Your task to perform on an android device: Clear all items from cart on target. Search for rayovac triple a on target, select the first entry, and add it to the cart. Image 0: 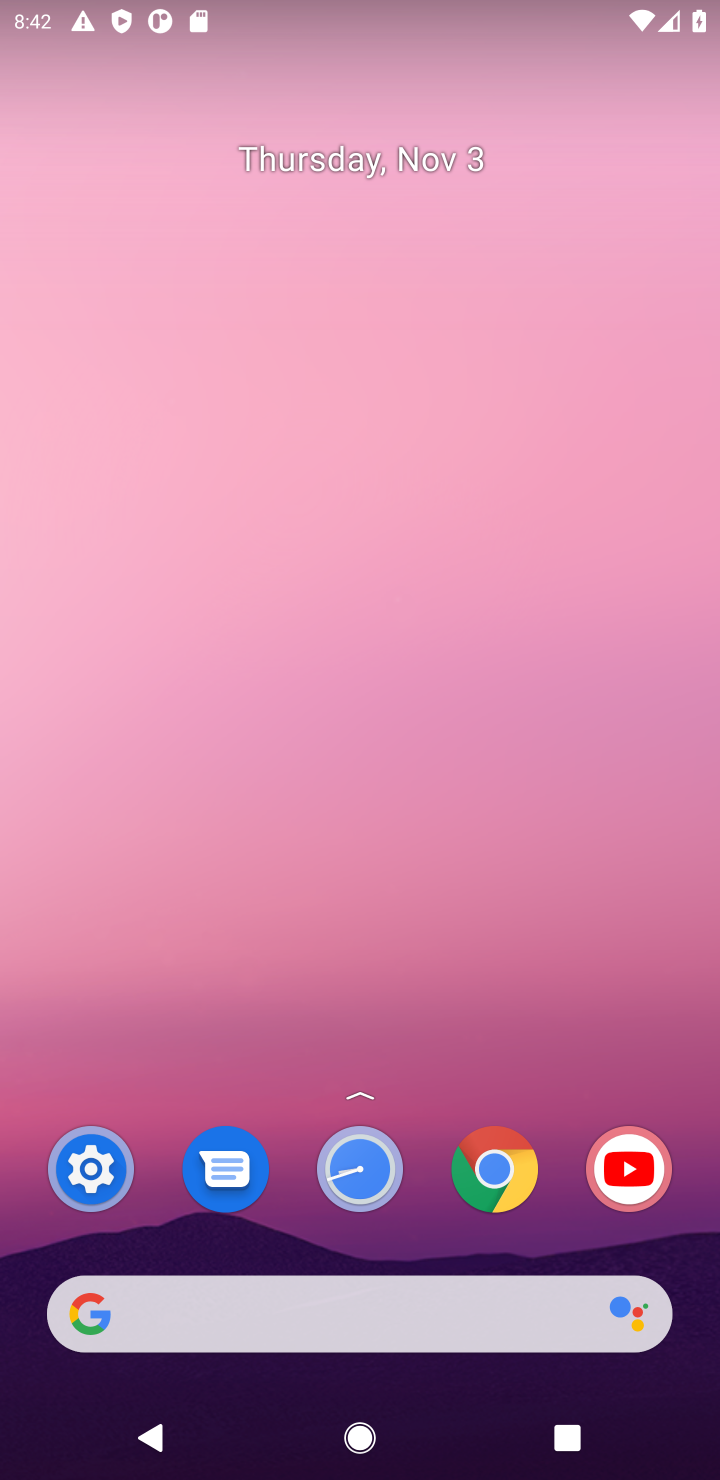
Step 0: drag from (430, 1091) to (483, 226)
Your task to perform on an android device: Clear all items from cart on target. Search for rayovac triple a on target, select the first entry, and add it to the cart. Image 1: 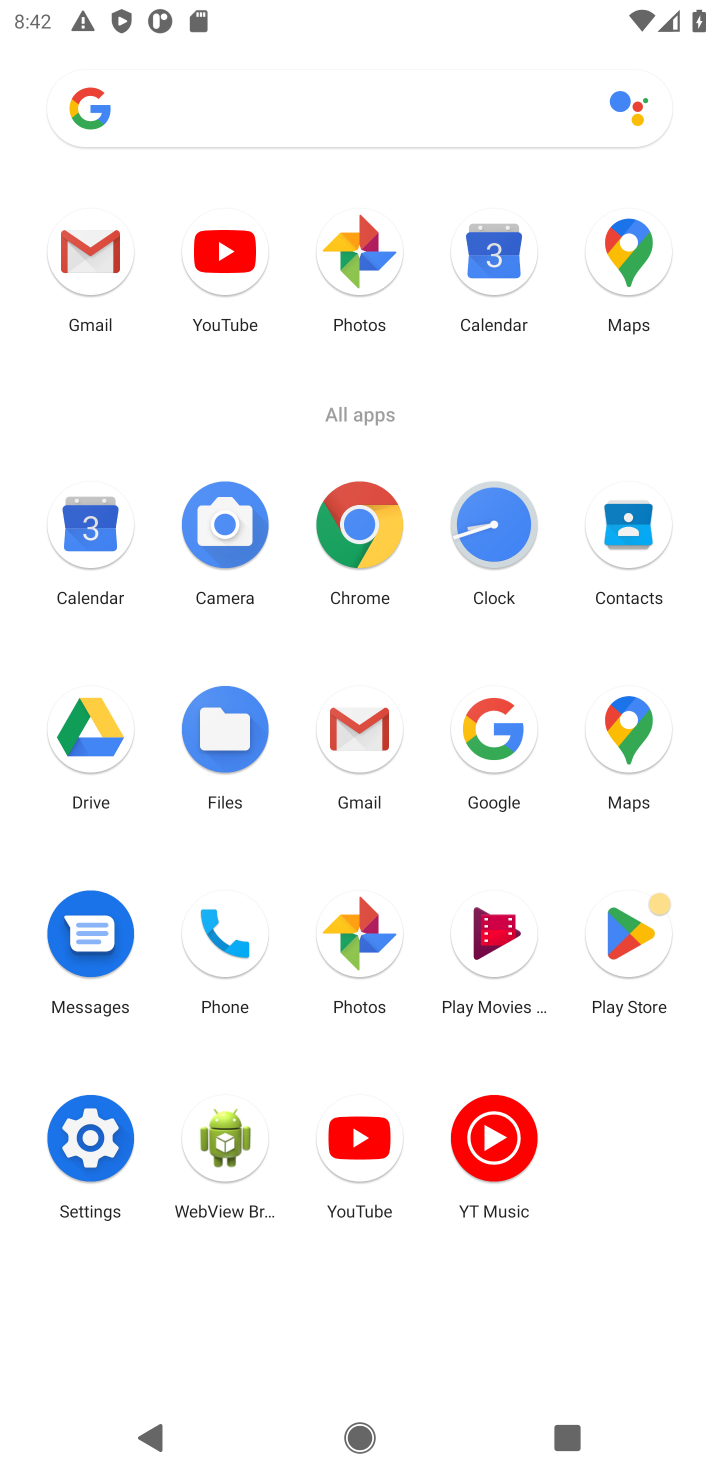
Step 1: click (361, 520)
Your task to perform on an android device: Clear all items from cart on target. Search for rayovac triple a on target, select the first entry, and add it to the cart. Image 2: 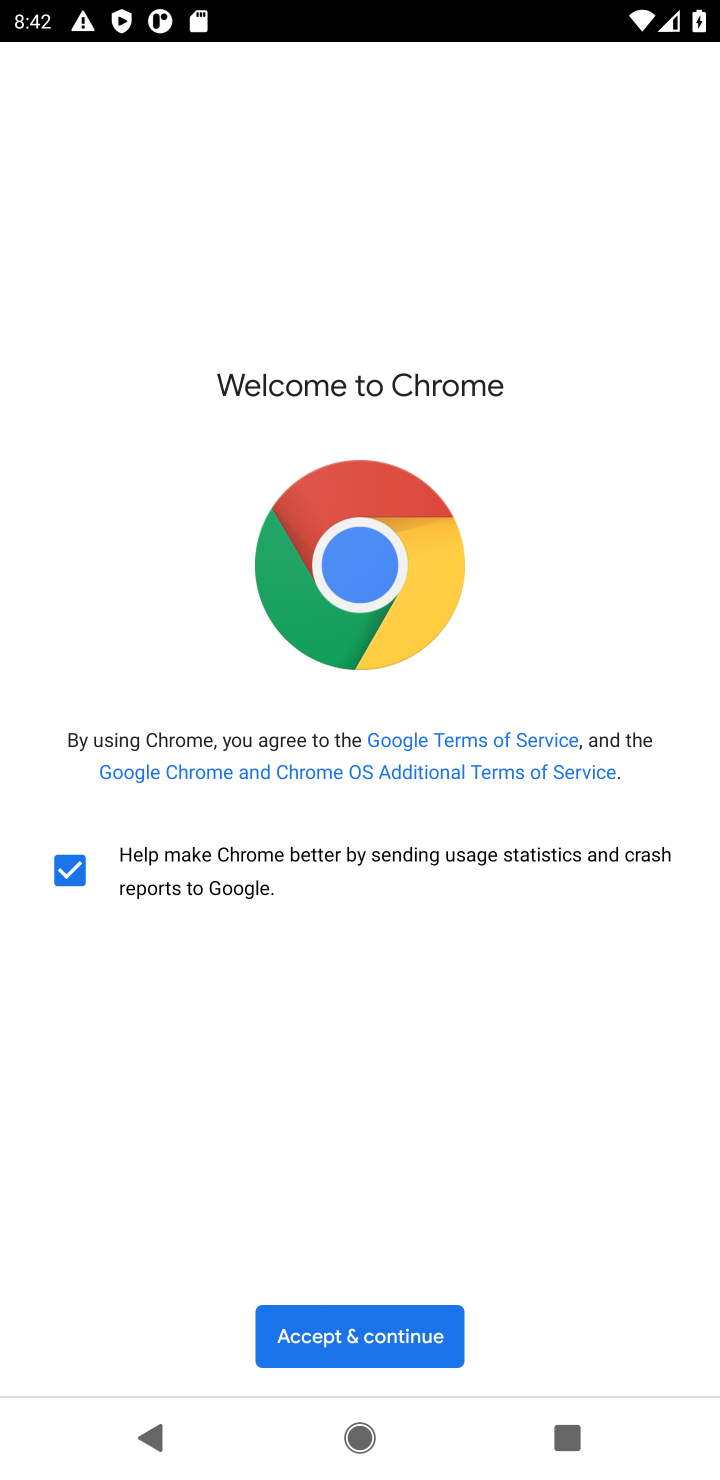
Step 2: click (292, 1345)
Your task to perform on an android device: Clear all items from cart on target. Search for rayovac triple a on target, select the first entry, and add it to the cart. Image 3: 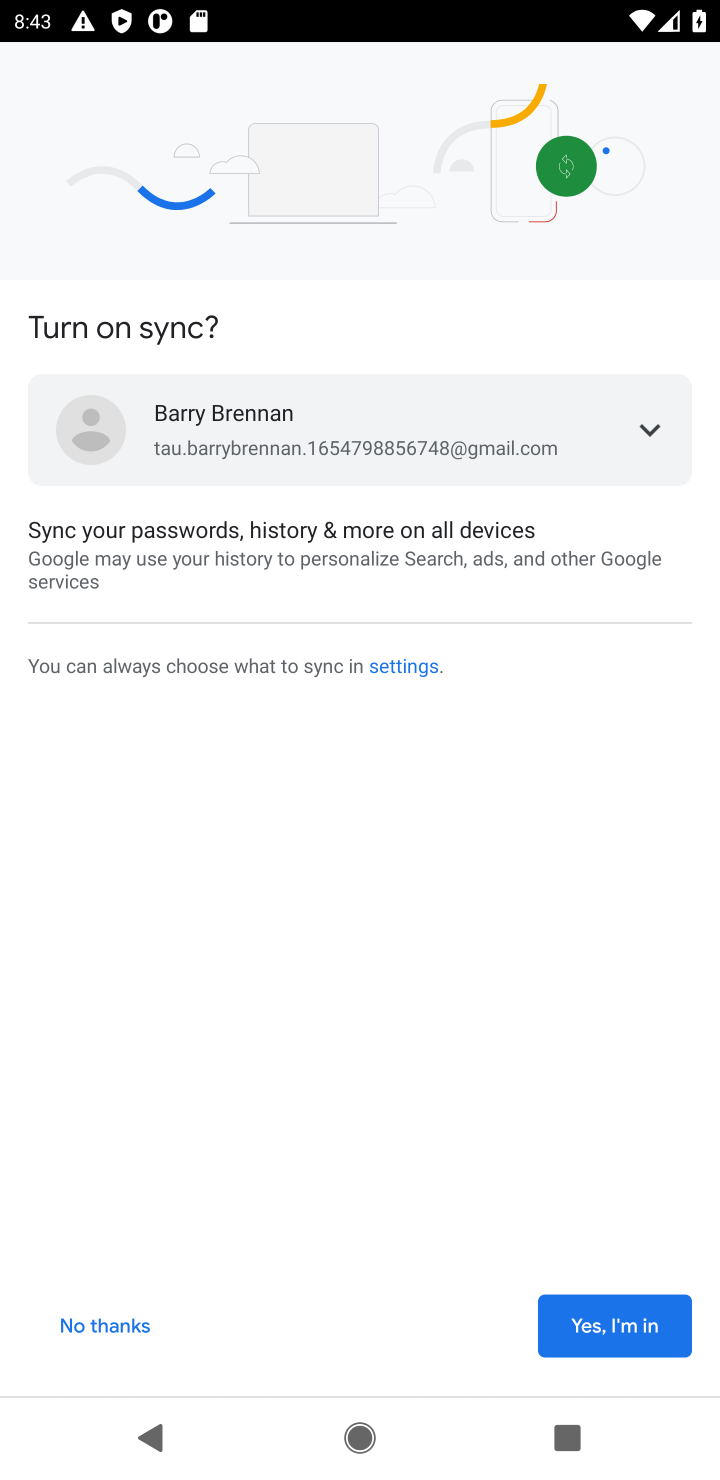
Step 3: click (651, 1307)
Your task to perform on an android device: Clear all items from cart on target. Search for rayovac triple a on target, select the first entry, and add it to the cart. Image 4: 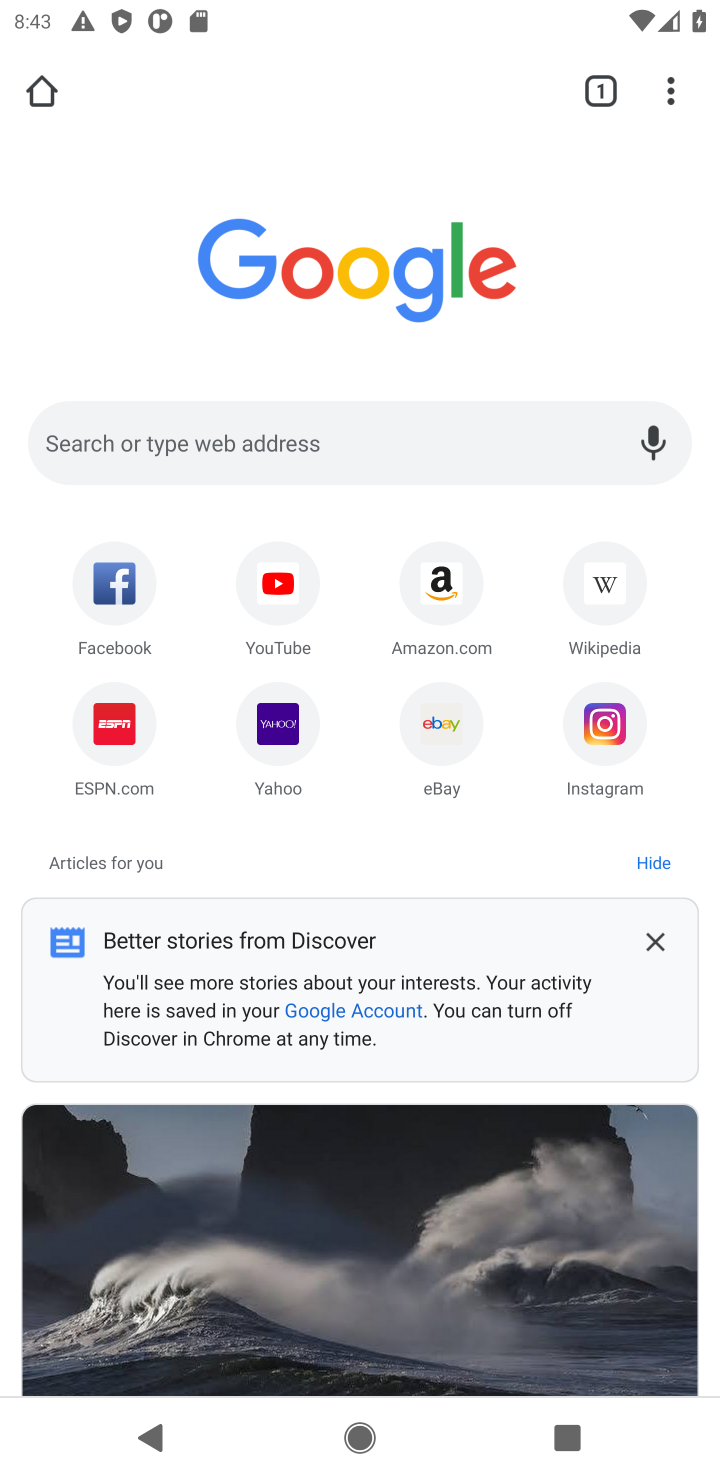
Step 4: click (448, 418)
Your task to perform on an android device: Clear all items from cart on target. Search for rayovac triple a on target, select the first entry, and add it to the cart. Image 5: 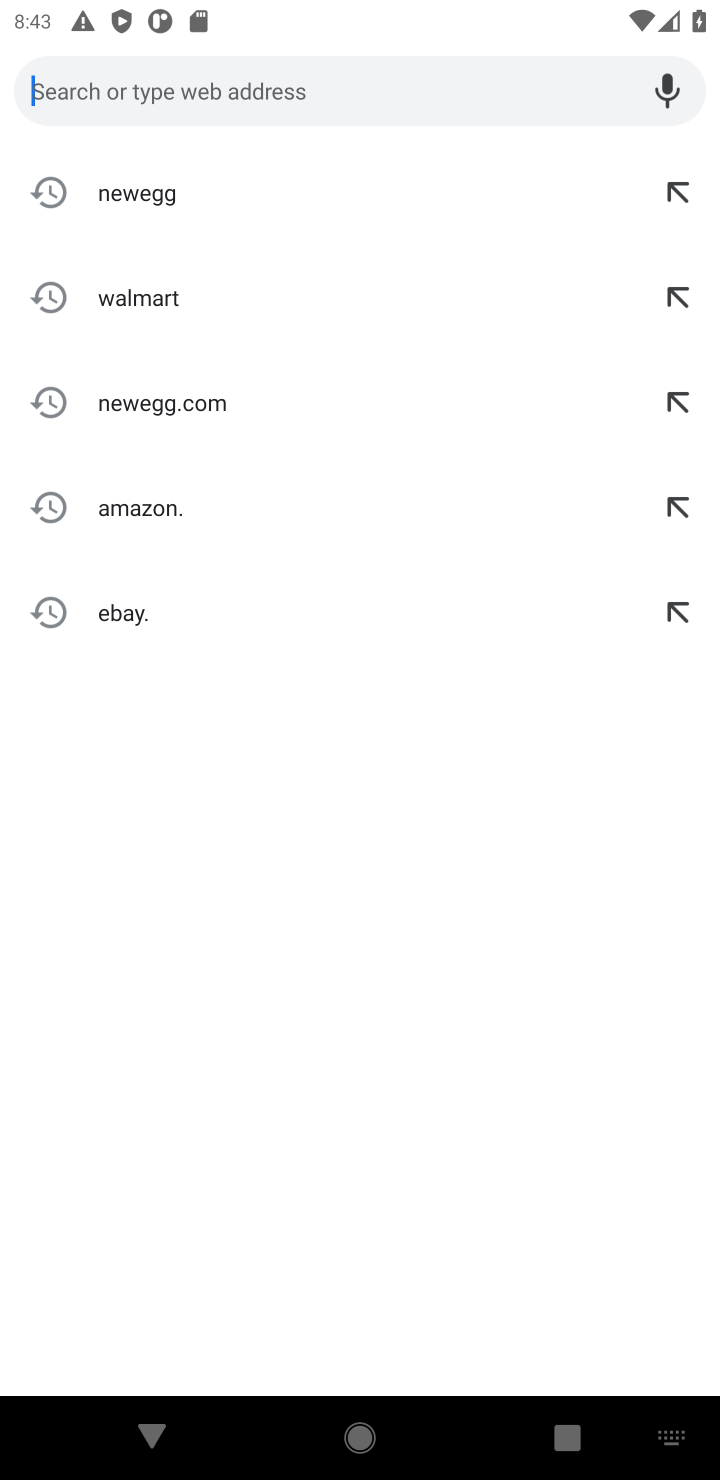
Step 5: type "target.com"
Your task to perform on an android device: Clear all items from cart on target. Search for rayovac triple a on target, select the first entry, and add it to the cart. Image 6: 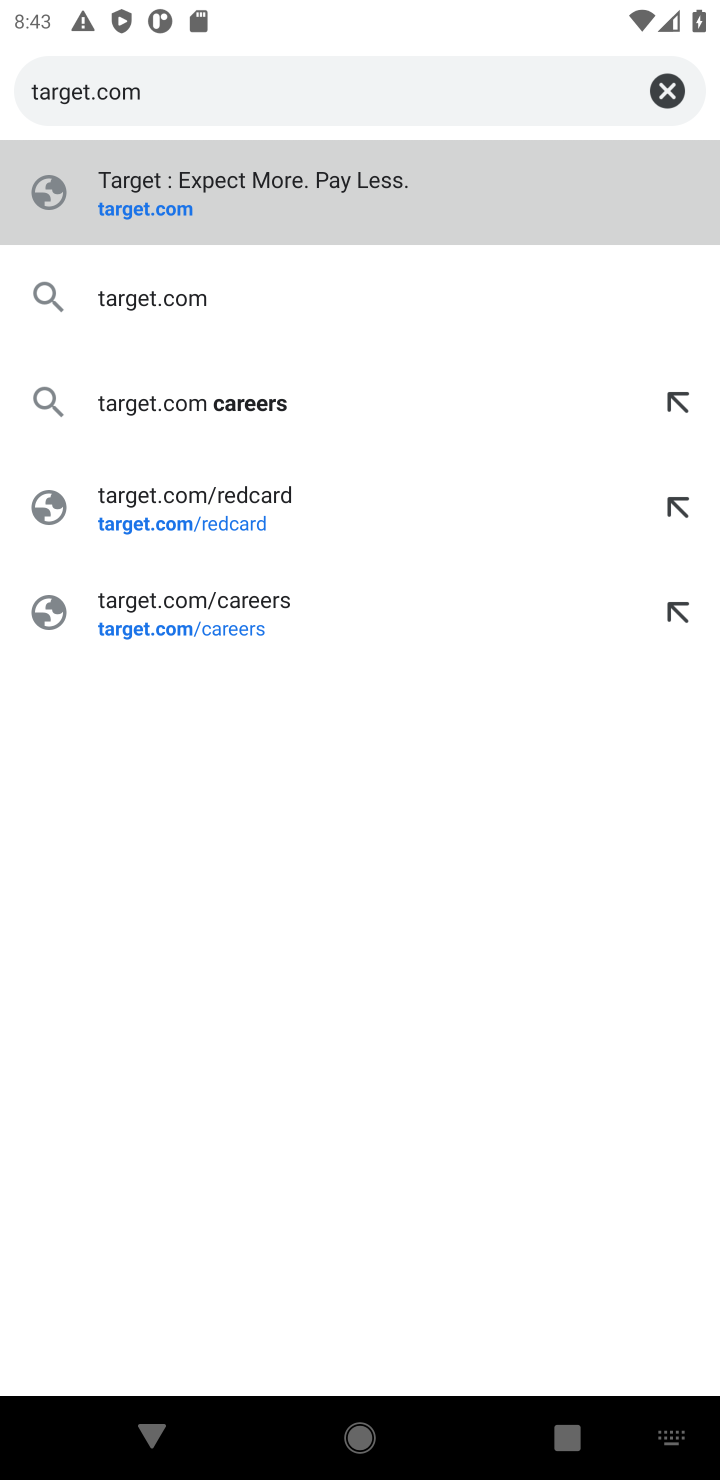
Step 6: press enter
Your task to perform on an android device: Clear all items from cart on target. Search for rayovac triple a on target, select the first entry, and add it to the cart. Image 7: 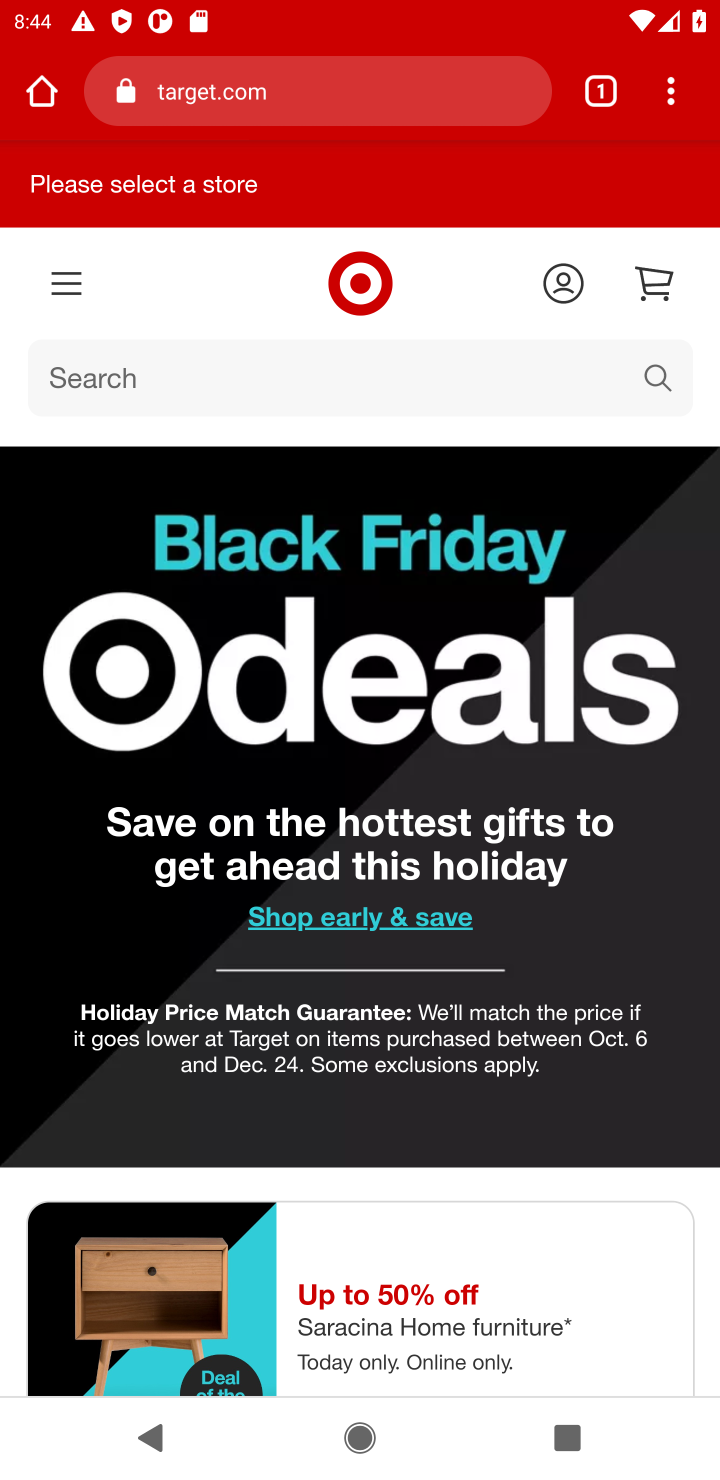
Step 7: drag from (354, 1187) to (498, 360)
Your task to perform on an android device: Clear all items from cart on target. Search for rayovac triple a on target, select the first entry, and add it to the cart. Image 8: 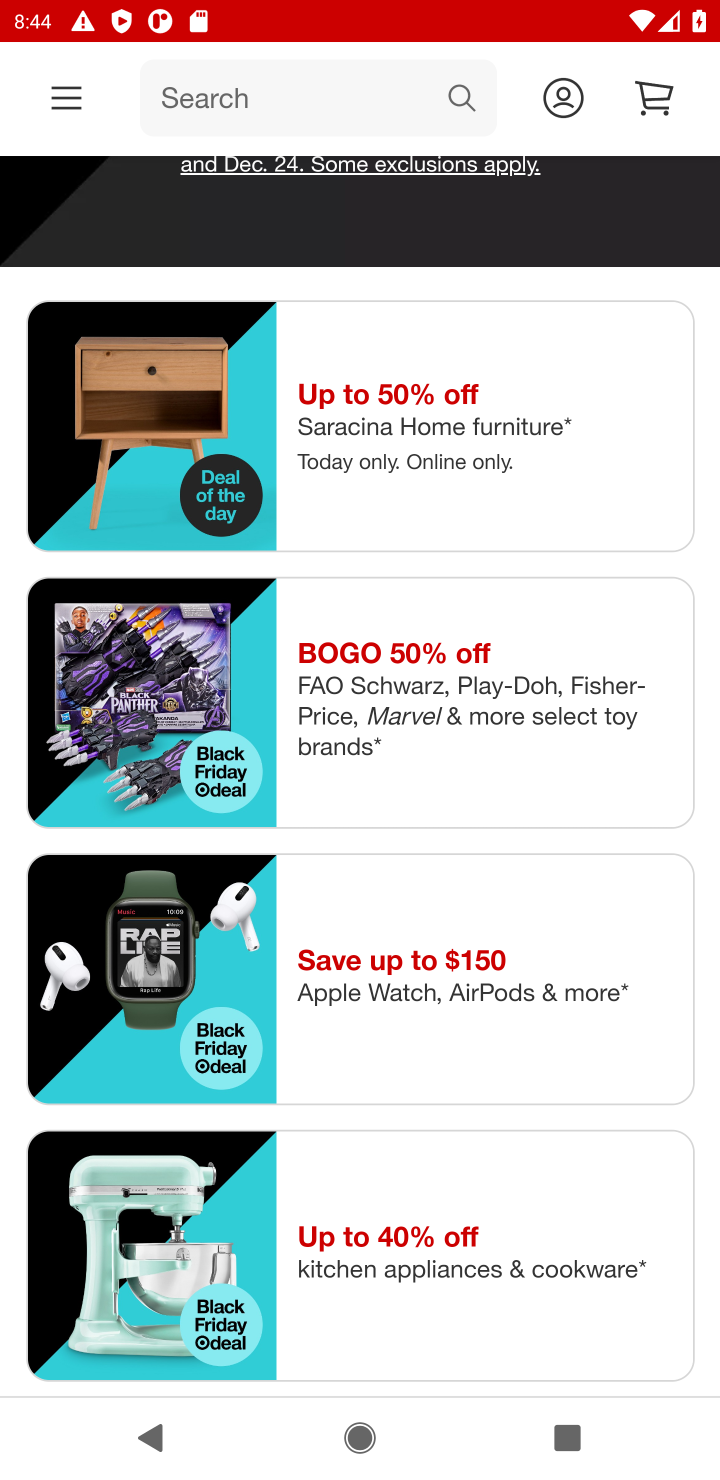
Step 8: click (656, 102)
Your task to perform on an android device: Clear all items from cart on target. Search for rayovac triple a on target, select the first entry, and add it to the cart. Image 9: 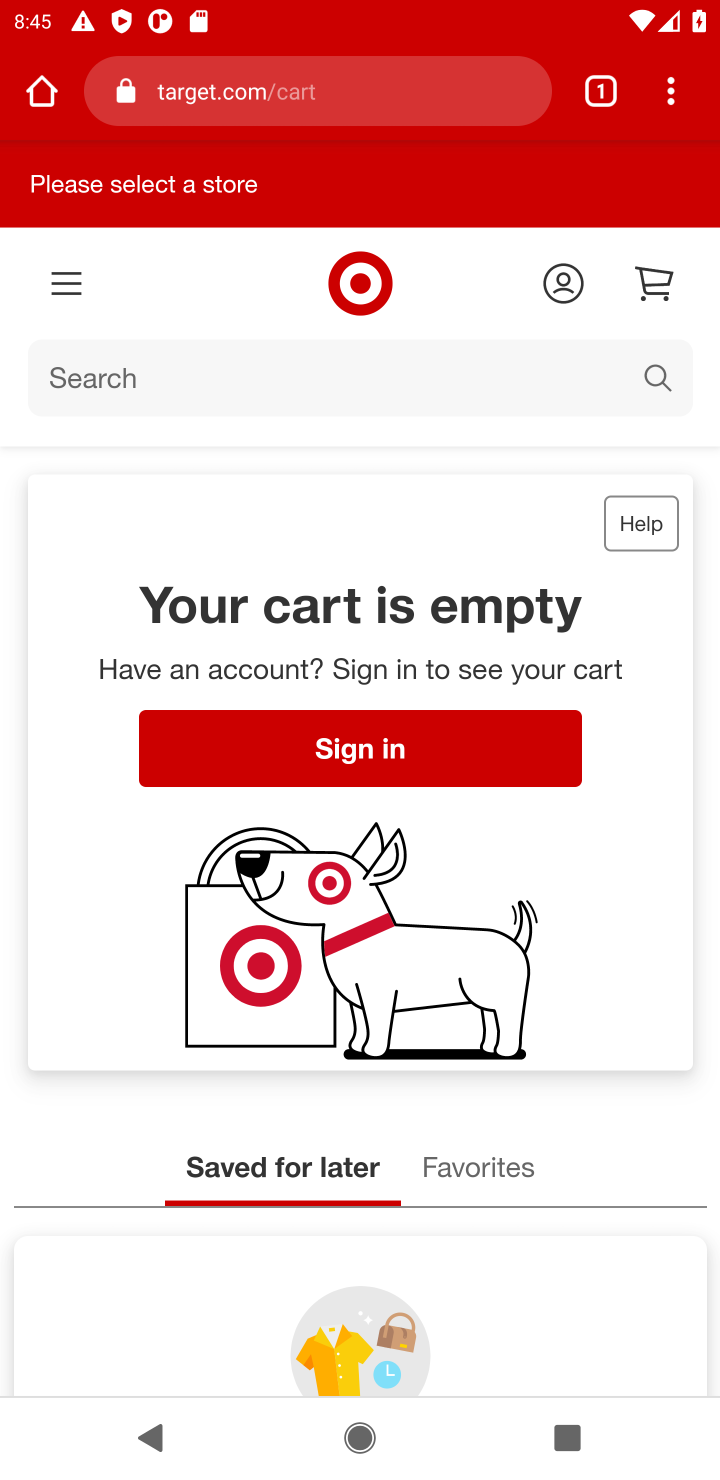
Step 9: click (472, 373)
Your task to perform on an android device: Clear all items from cart on target. Search for rayovac triple a on target, select the first entry, and add it to the cart. Image 10: 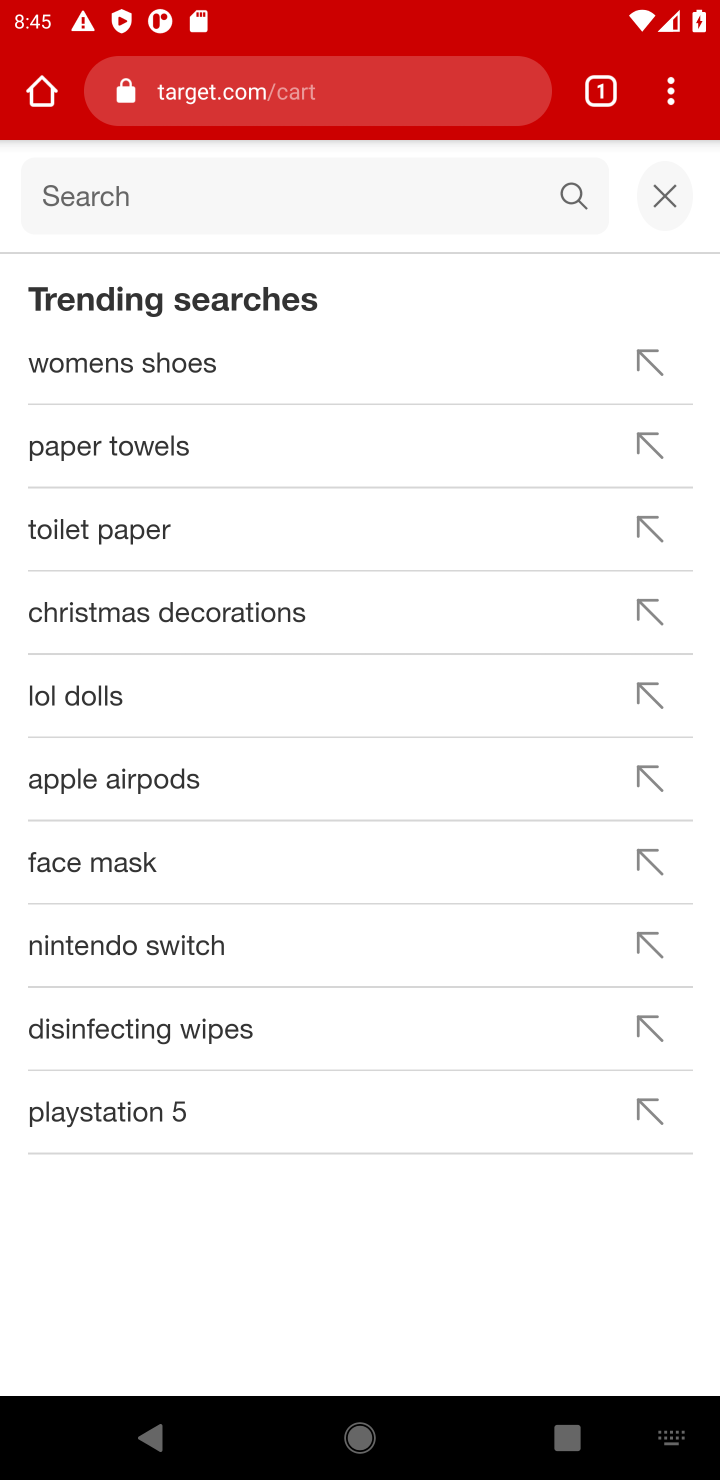
Step 10: type "rayovac triple a"
Your task to perform on an android device: Clear all items from cart on target. Search for rayovac triple a on target, select the first entry, and add it to the cart. Image 11: 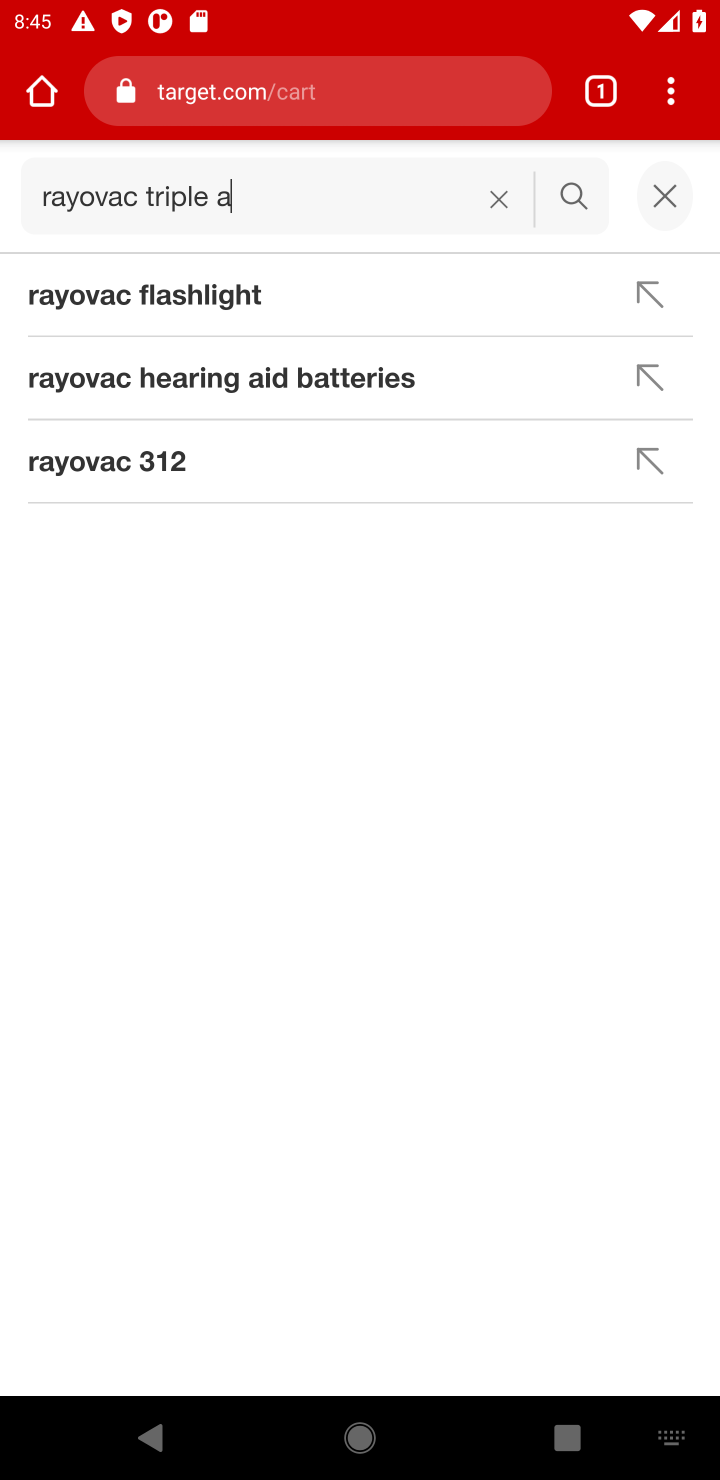
Step 11: press enter
Your task to perform on an android device: Clear all items from cart on target. Search for rayovac triple a on target, select the first entry, and add it to the cart. Image 12: 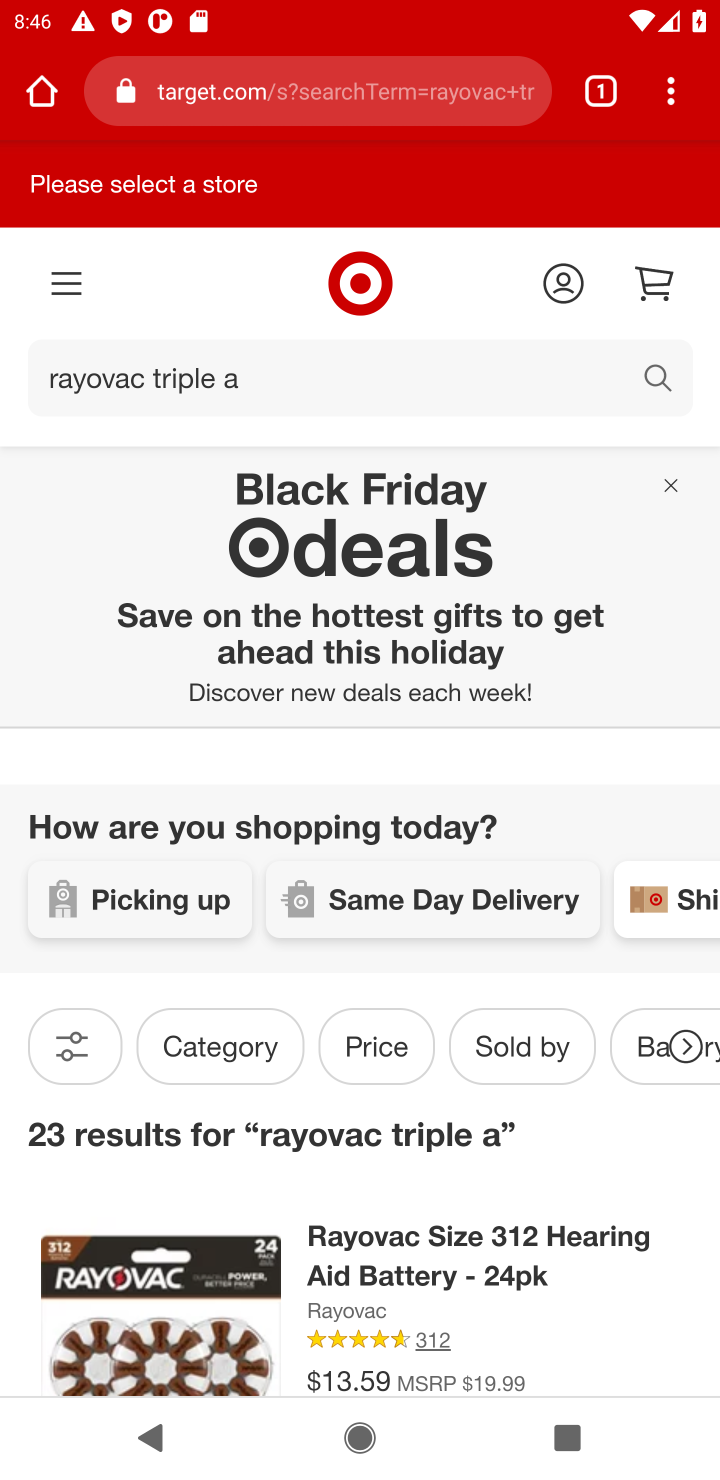
Step 12: drag from (501, 1239) to (508, 548)
Your task to perform on an android device: Clear all items from cart on target. Search for rayovac triple a on target, select the first entry, and add it to the cart. Image 13: 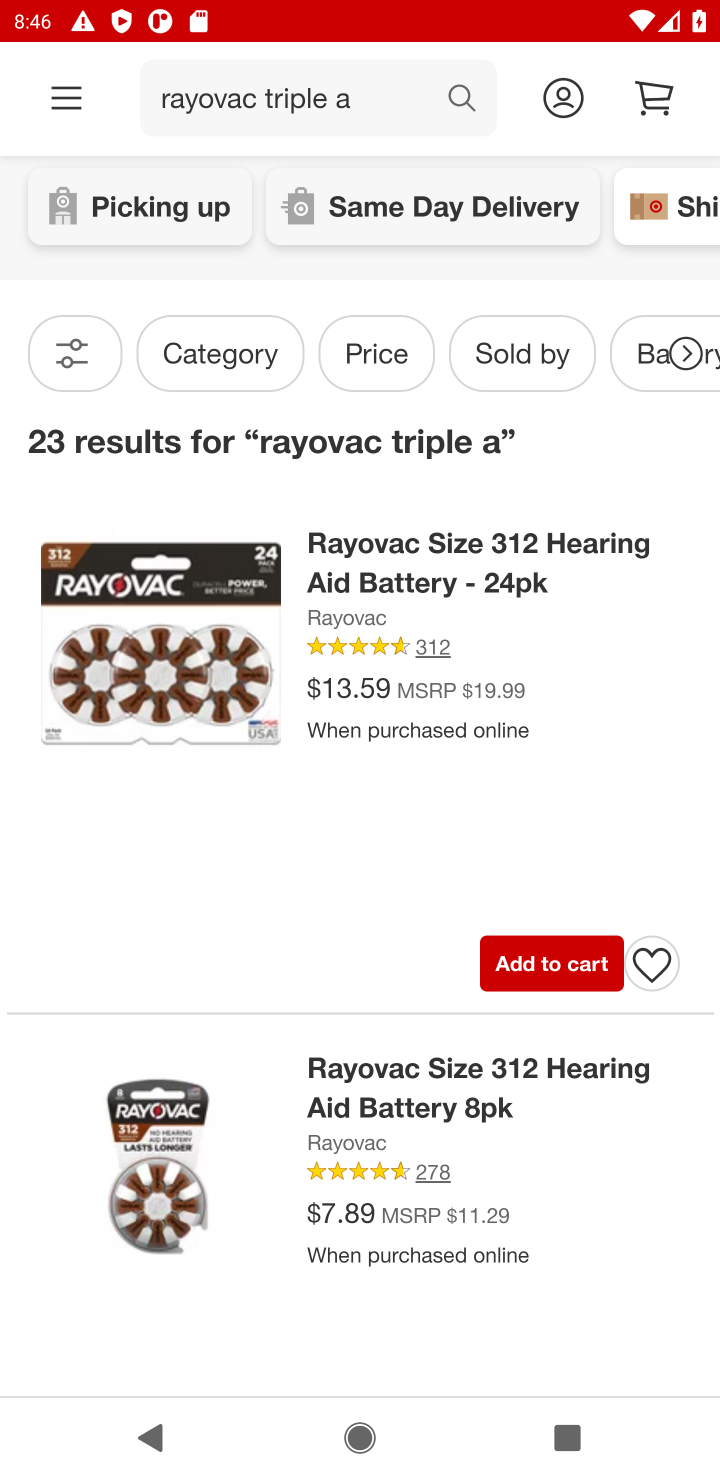
Step 13: drag from (407, 1168) to (450, 467)
Your task to perform on an android device: Clear all items from cart on target. Search for rayovac triple a on target, select the first entry, and add it to the cart. Image 14: 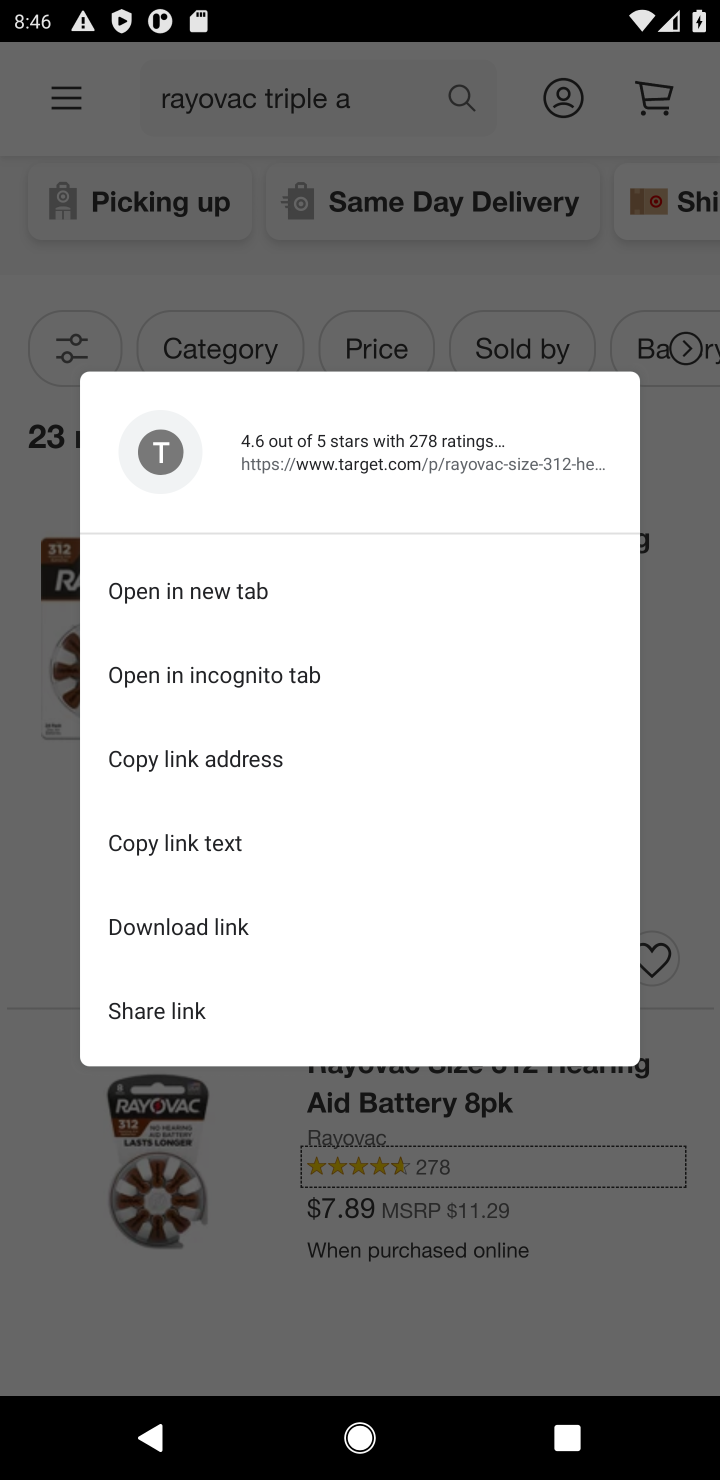
Step 14: click (433, 284)
Your task to perform on an android device: Clear all items from cart on target. Search for rayovac triple a on target, select the first entry, and add it to the cart. Image 15: 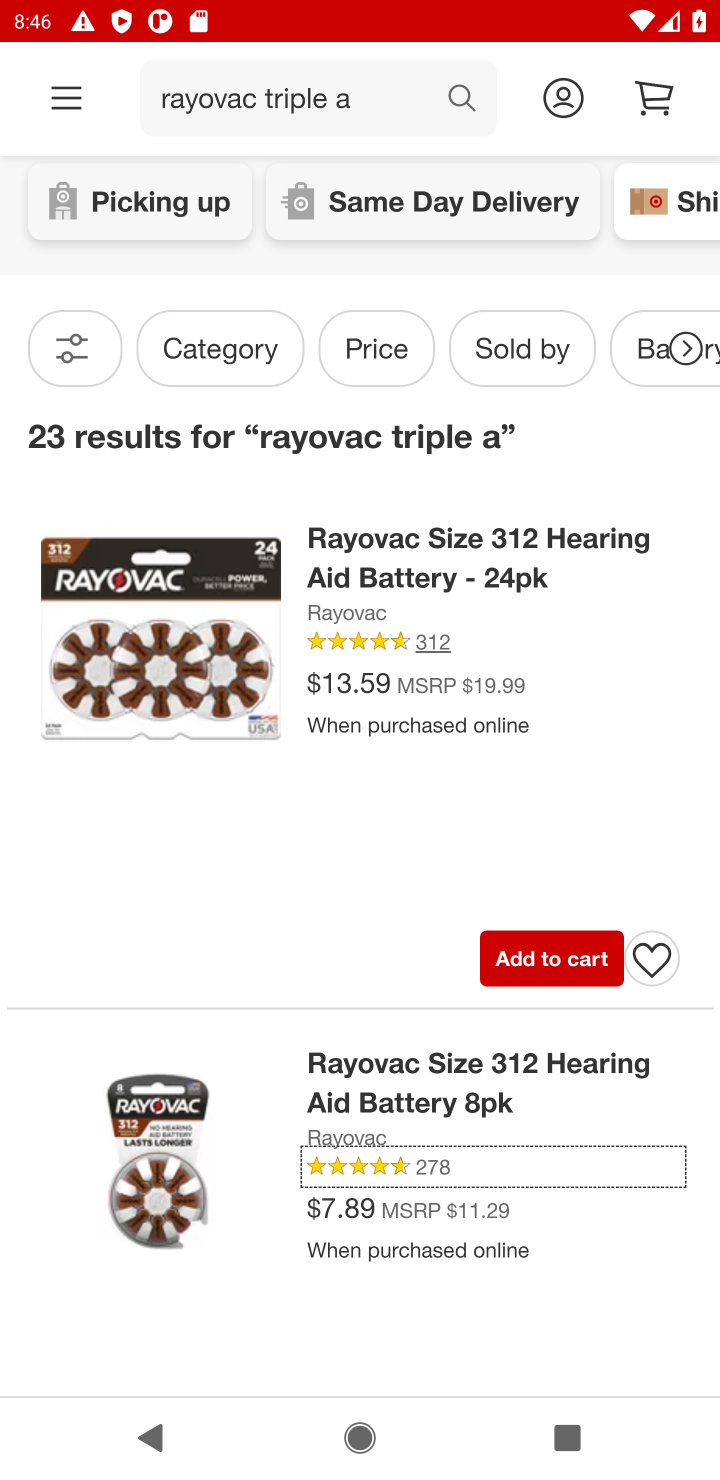
Step 15: task complete